Your task to perform on an android device: Open Google Chrome Image 0: 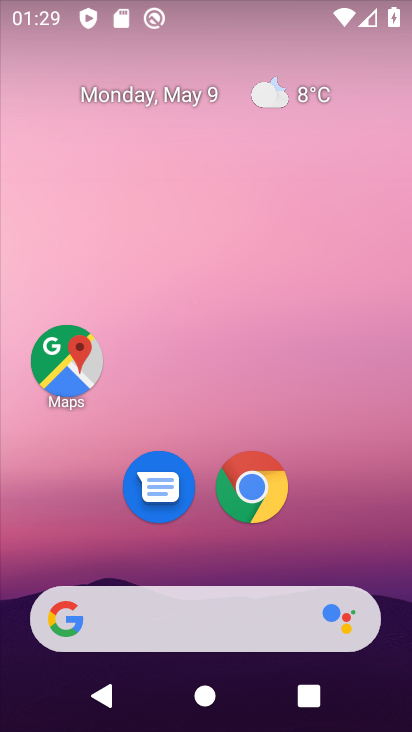
Step 0: click (241, 483)
Your task to perform on an android device: Open Google Chrome Image 1: 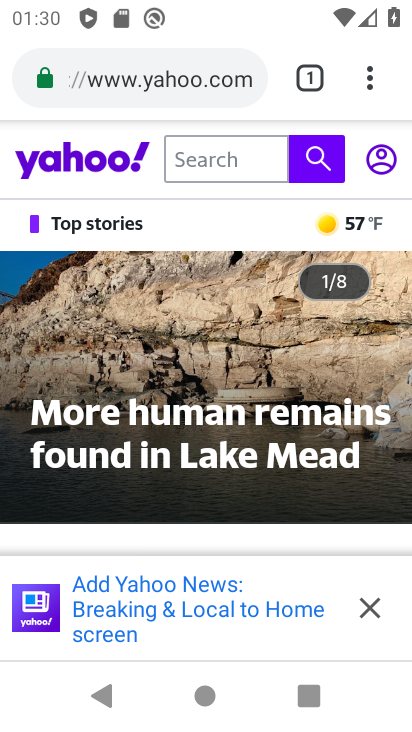
Step 1: task complete